Your task to perform on an android device: When is my next meeting? Image 0: 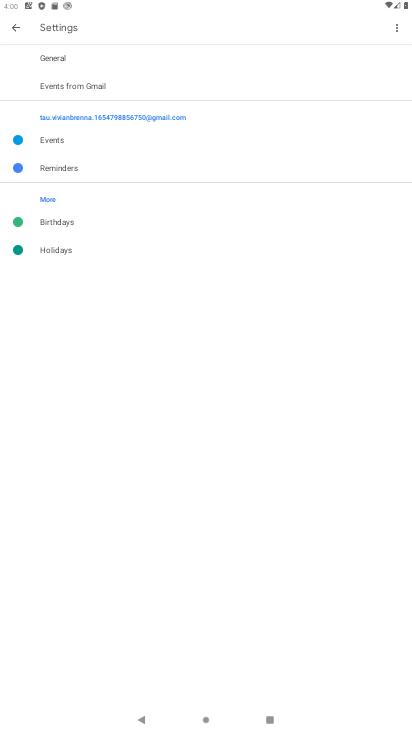
Step 0: press home button
Your task to perform on an android device: When is my next meeting? Image 1: 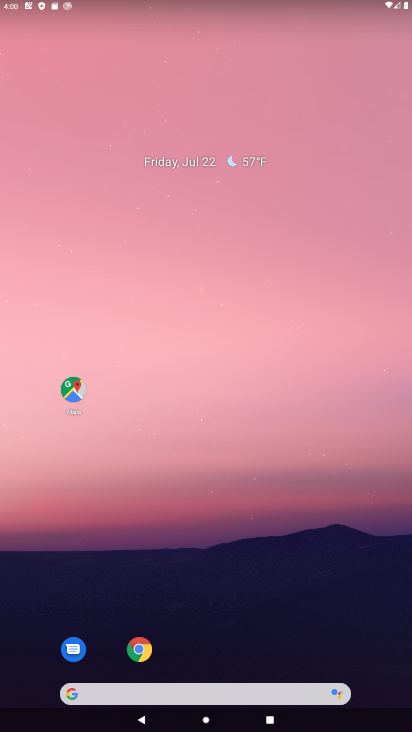
Step 1: drag from (50, 683) to (276, 254)
Your task to perform on an android device: When is my next meeting? Image 2: 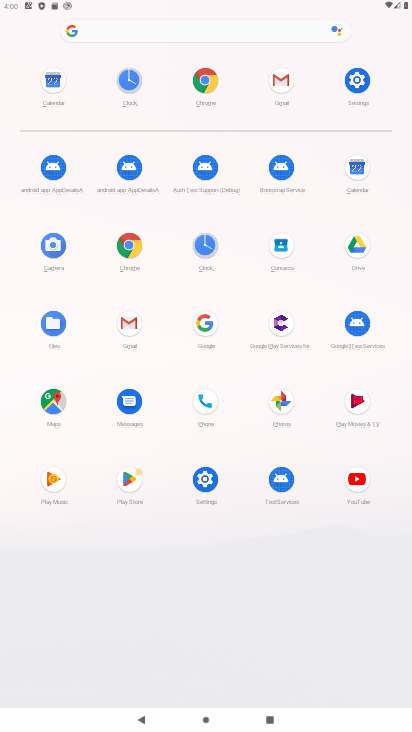
Step 2: click (360, 175)
Your task to perform on an android device: When is my next meeting? Image 3: 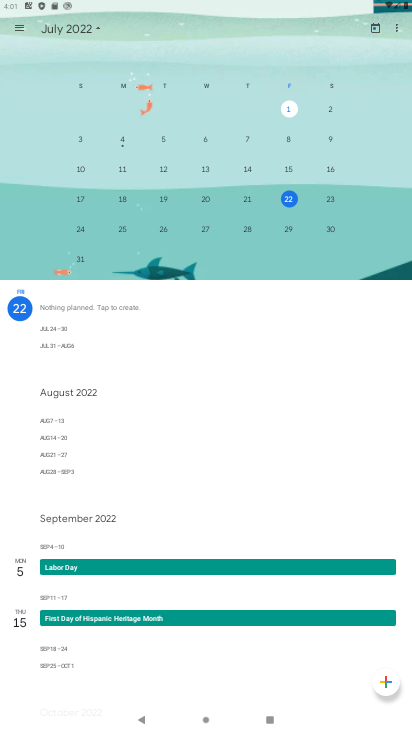
Step 3: task complete